Your task to perform on an android device: Open my contact list Image 0: 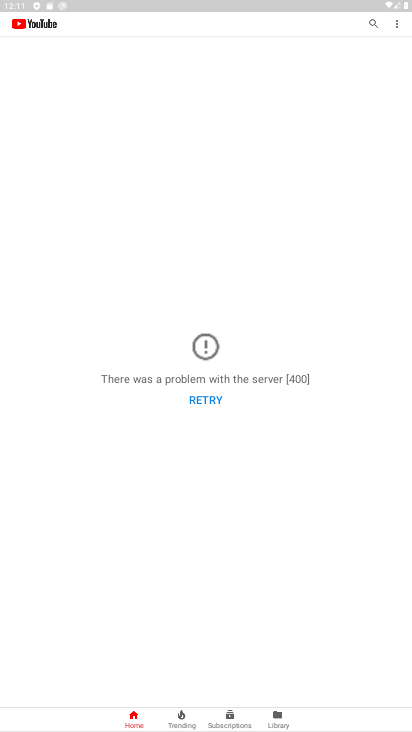
Step 0: press home button
Your task to perform on an android device: Open my contact list Image 1: 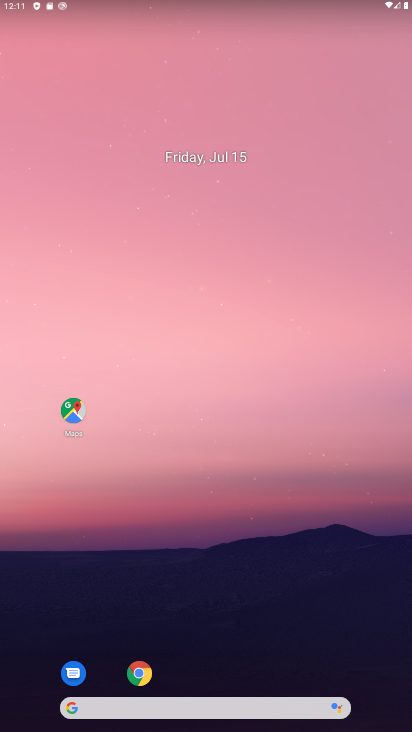
Step 1: drag from (371, 658) to (255, 151)
Your task to perform on an android device: Open my contact list Image 2: 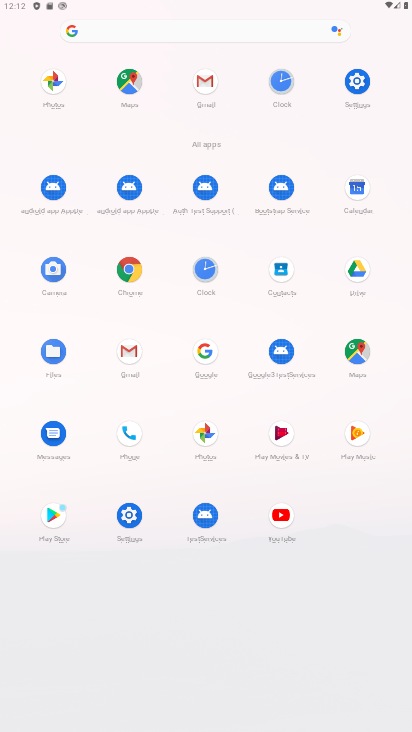
Step 2: click (273, 255)
Your task to perform on an android device: Open my contact list Image 3: 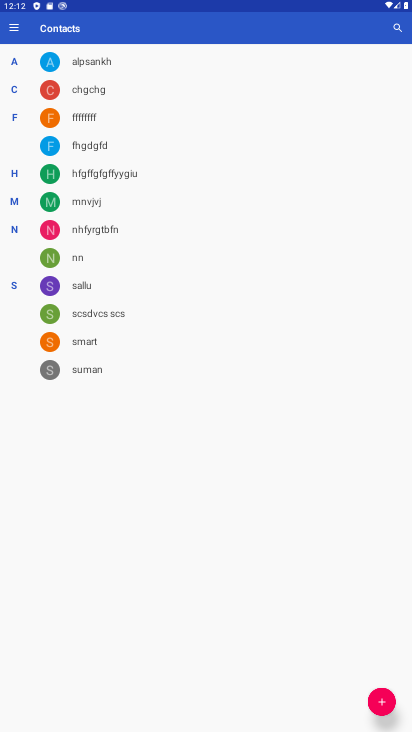
Step 3: task complete